Your task to perform on an android device: turn off airplane mode Image 0: 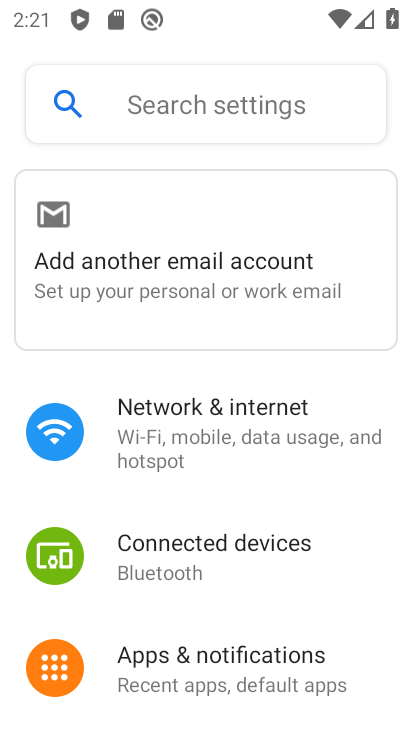
Step 0: press home button
Your task to perform on an android device: turn off airplane mode Image 1: 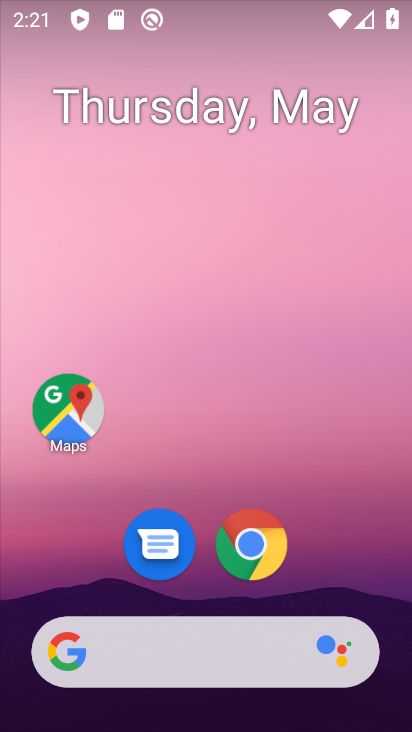
Step 1: drag from (168, 671) to (166, 110)
Your task to perform on an android device: turn off airplane mode Image 2: 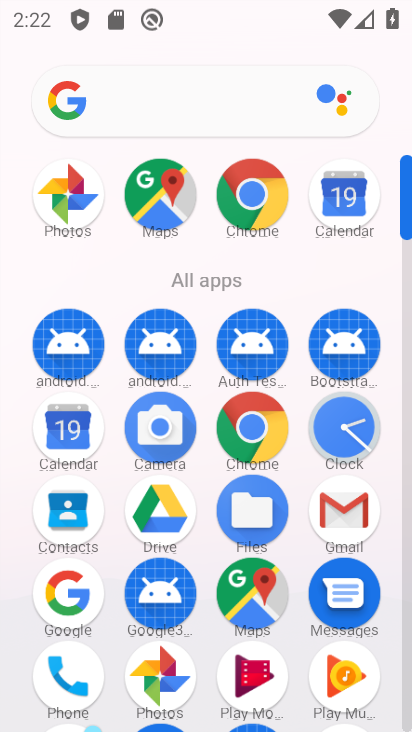
Step 2: drag from (221, 623) to (157, 174)
Your task to perform on an android device: turn off airplane mode Image 3: 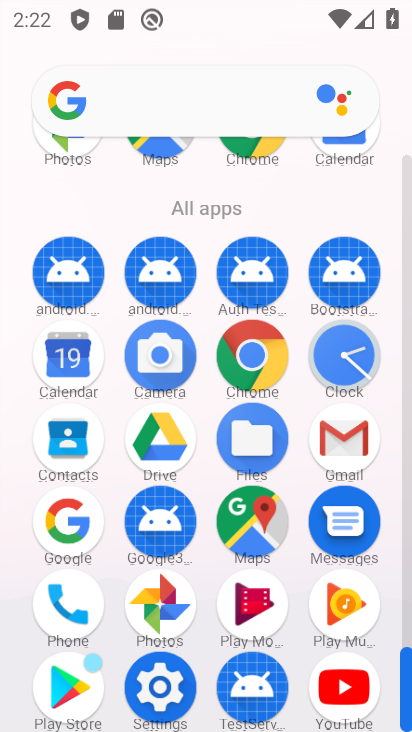
Step 3: click (165, 685)
Your task to perform on an android device: turn off airplane mode Image 4: 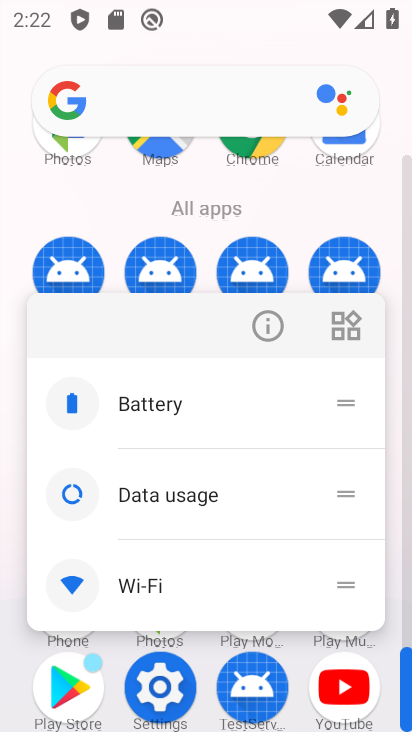
Step 4: click (181, 704)
Your task to perform on an android device: turn off airplane mode Image 5: 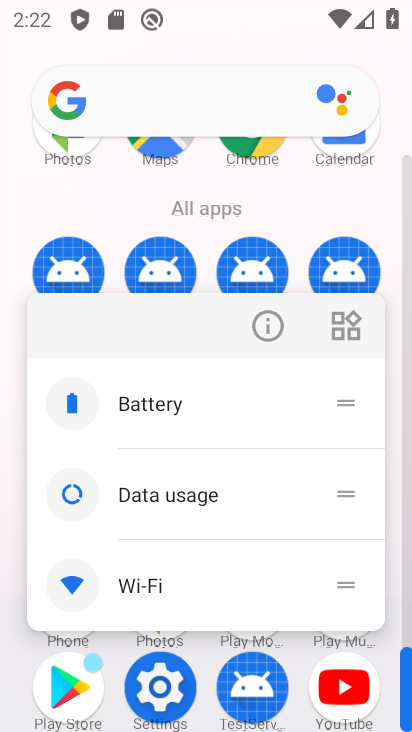
Step 5: click (181, 704)
Your task to perform on an android device: turn off airplane mode Image 6: 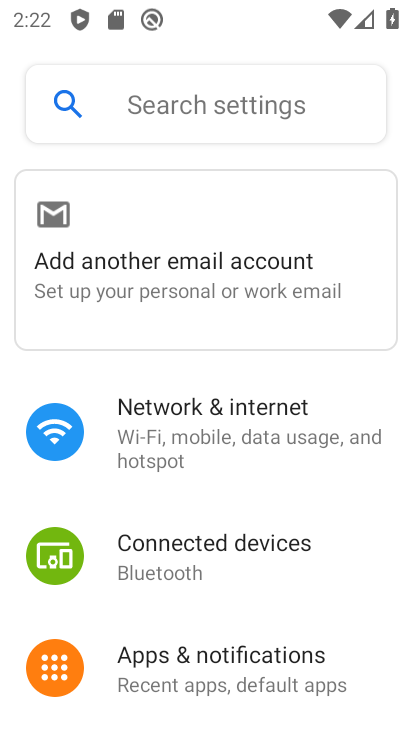
Step 6: click (291, 438)
Your task to perform on an android device: turn off airplane mode Image 7: 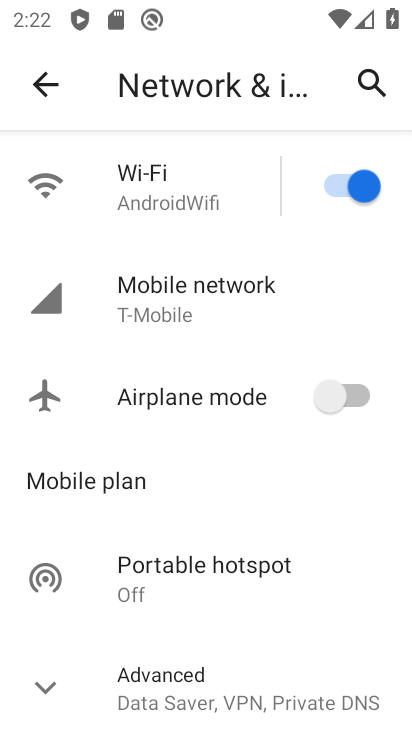
Step 7: task complete